Your task to perform on an android device: Go to CNN.com Image 0: 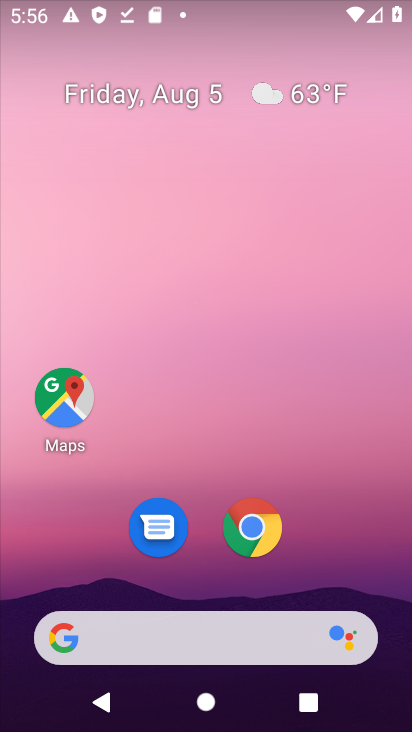
Step 0: drag from (195, 531) to (237, 66)
Your task to perform on an android device: Go to CNN.com Image 1: 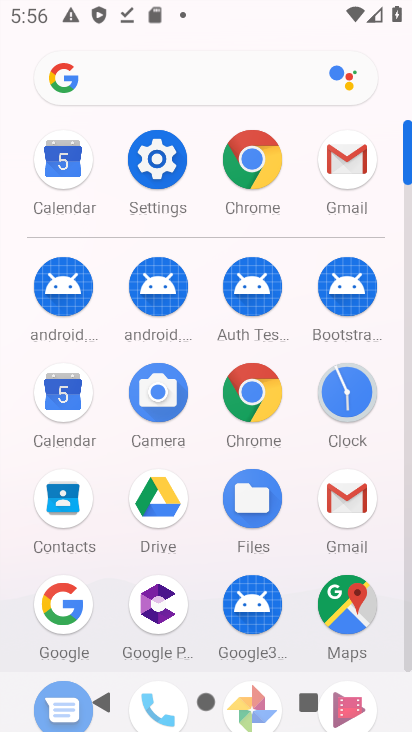
Step 1: click (256, 380)
Your task to perform on an android device: Go to CNN.com Image 2: 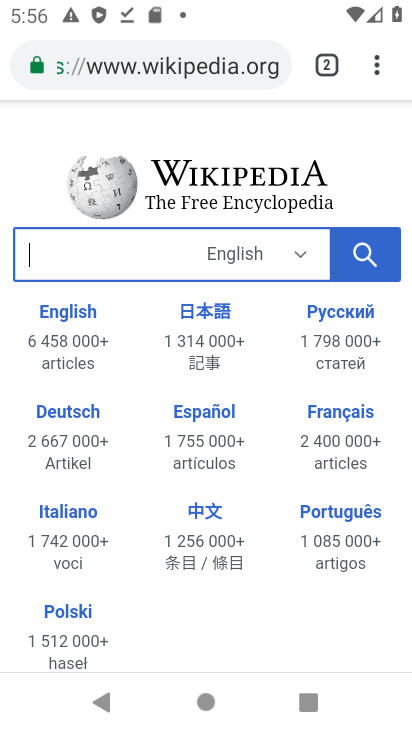
Step 2: click (136, 66)
Your task to perform on an android device: Go to CNN.com Image 3: 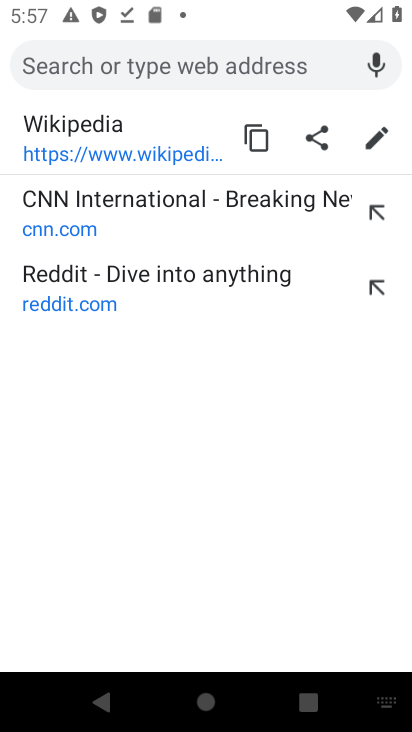
Step 3: type "CNN.com"
Your task to perform on an android device: Go to CNN.com Image 4: 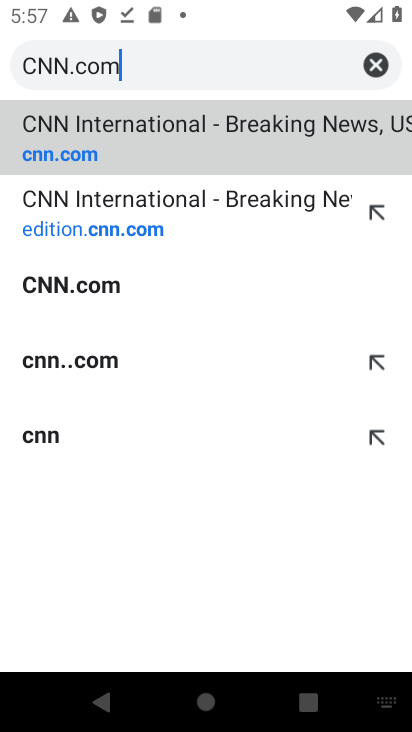
Step 4: type ""
Your task to perform on an android device: Go to CNN.com Image 5: 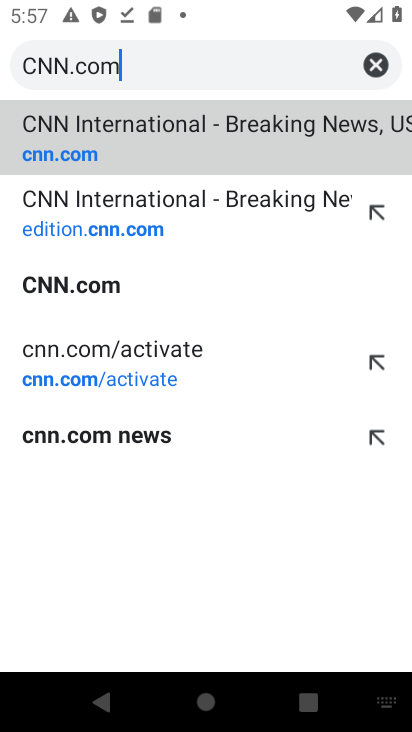
Step 5: click (129, 158)
Your task to perform on an android device: Go to CNN.com Image 6: 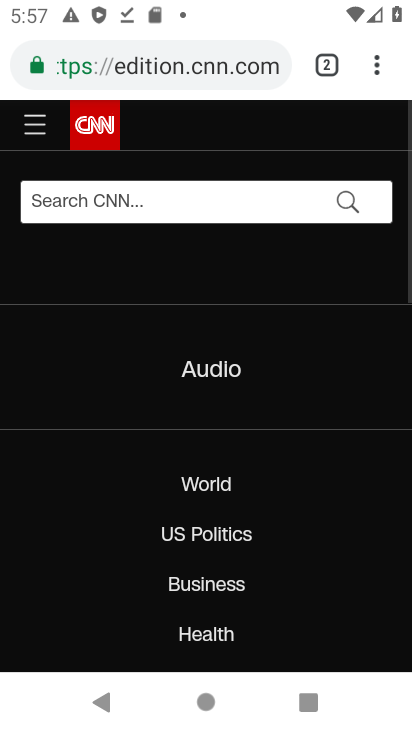
Step 6: task complete